Your task to perform on an android device: Set an alarm for 7am Image 0: 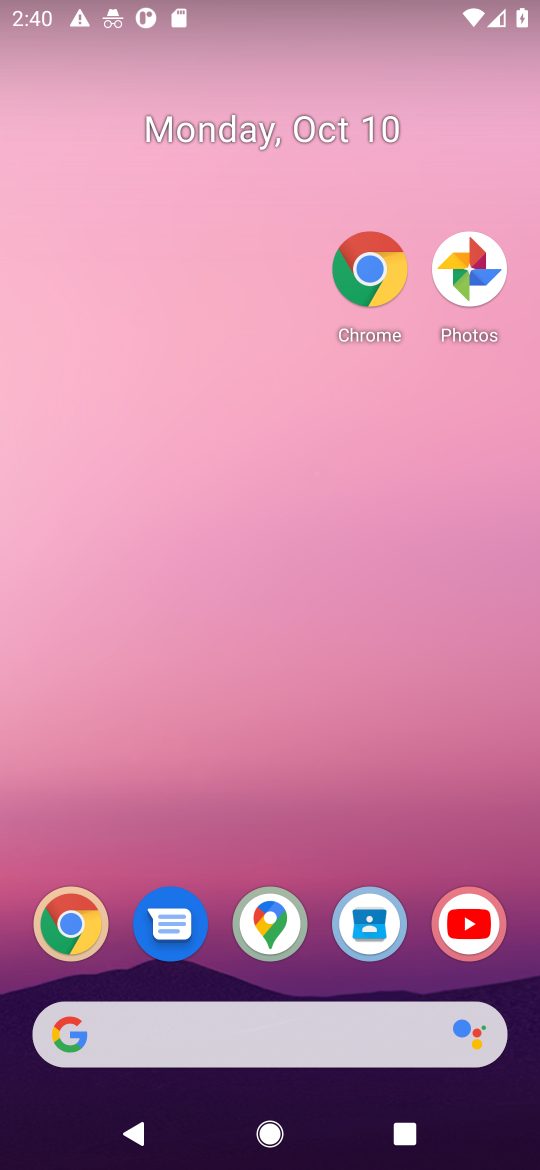
Step 0: drag from (313, 890) to (335, 16)
Your task to perform on an android device: Set an alarm for 7am Image 1: 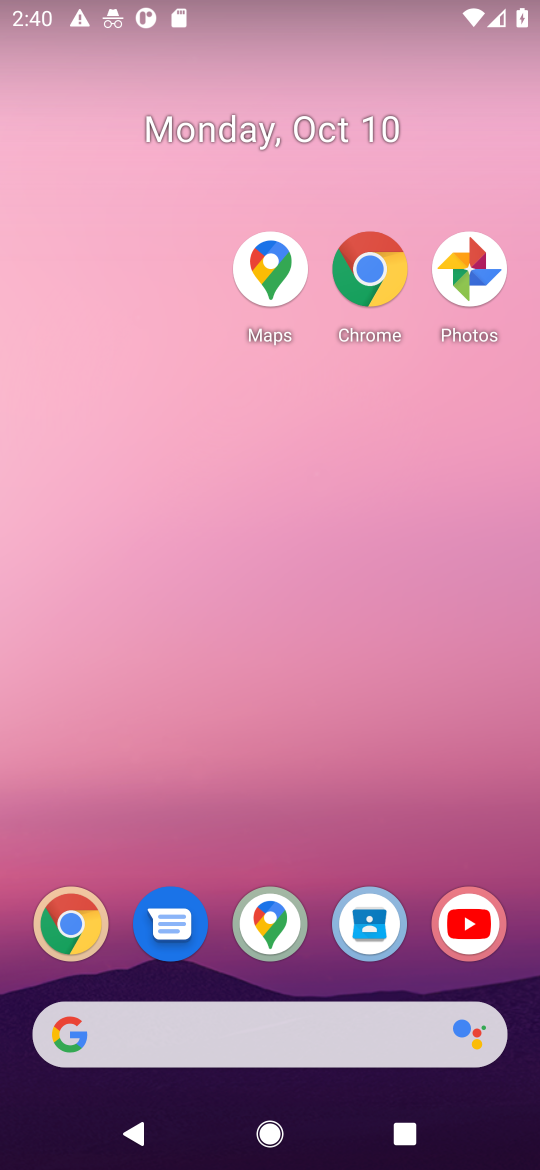
Step 1: drag from (320, 849) to (283, 9)
Your task to perform on an android device: Set an alarm for 7am Image 2: 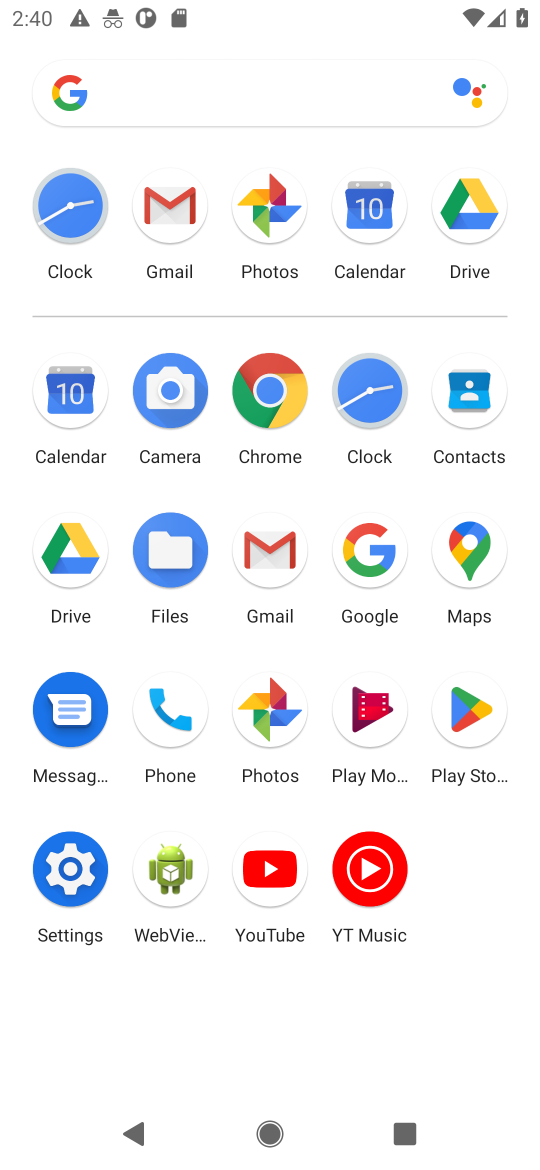
Step 2: click (385, 382)
Your task to perform on an android device: Set an alarm for 7am Image 3: 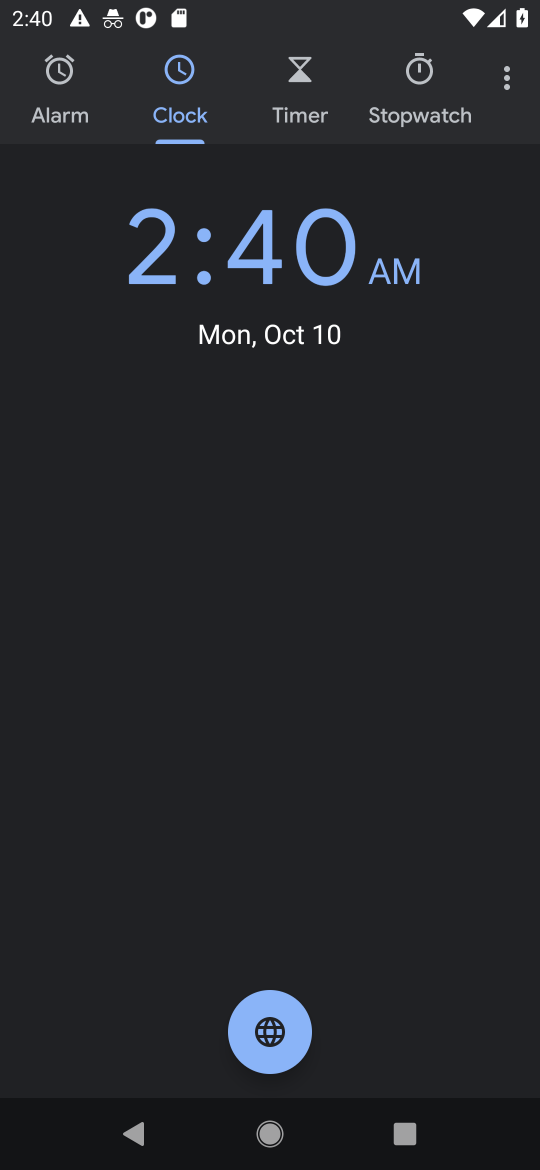
Step 3: click (60, 75)
Your task to perform on an android device: Set an alarm for 7am Image 4: 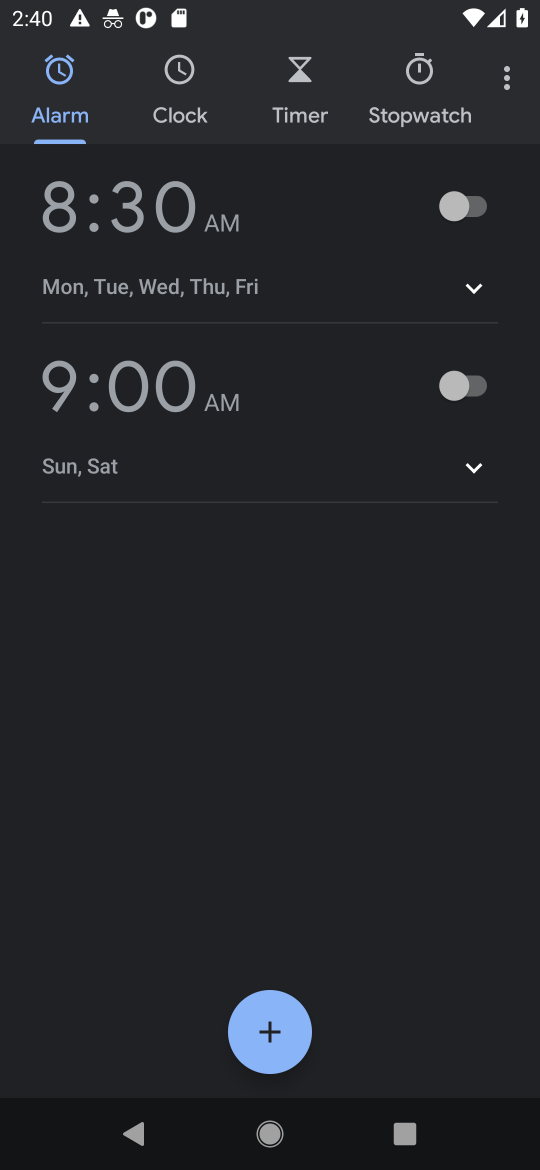
Step 4: click (284, 1029)
Your task to perform on an android device: Set an alarm for 7am Image 5: 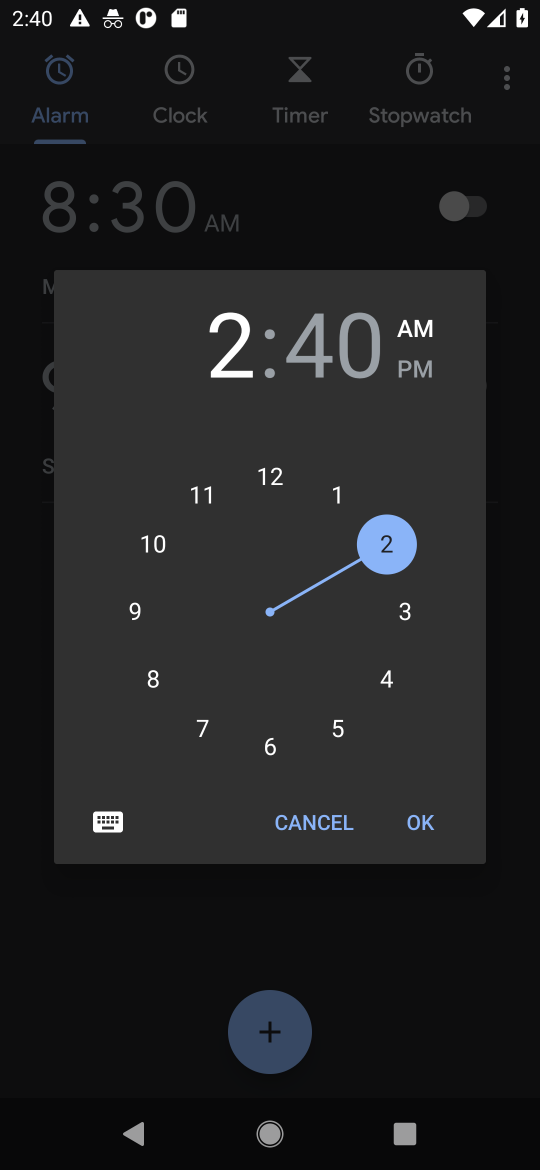
Step 5: click (202, 735)
Your task to perform on an android device: Set an alarm for 7am Image 6: 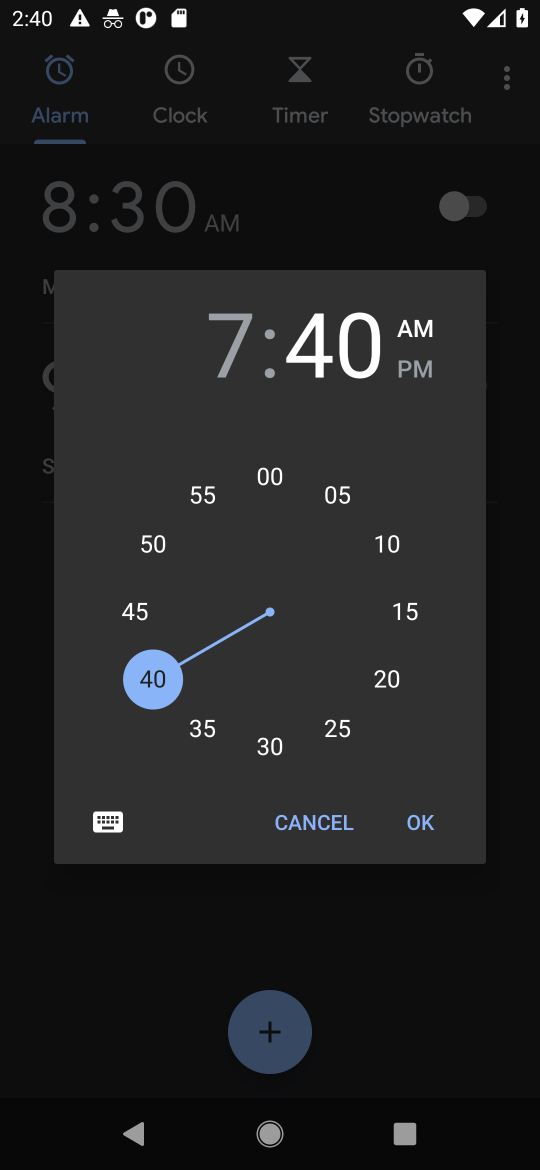
Step 6: click (266, 466)
Your task to perform on an android device: Set an alarm for 7am Image 7: 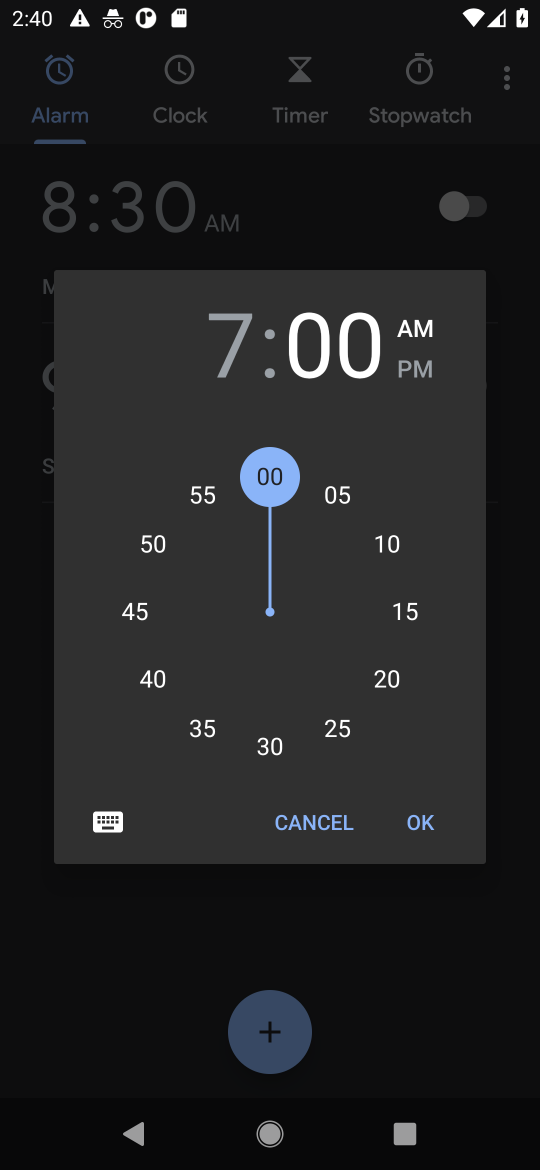
Step 7: click (438, 819)
Your task to perform on an android device: Set an alarm for 7am Image 8: 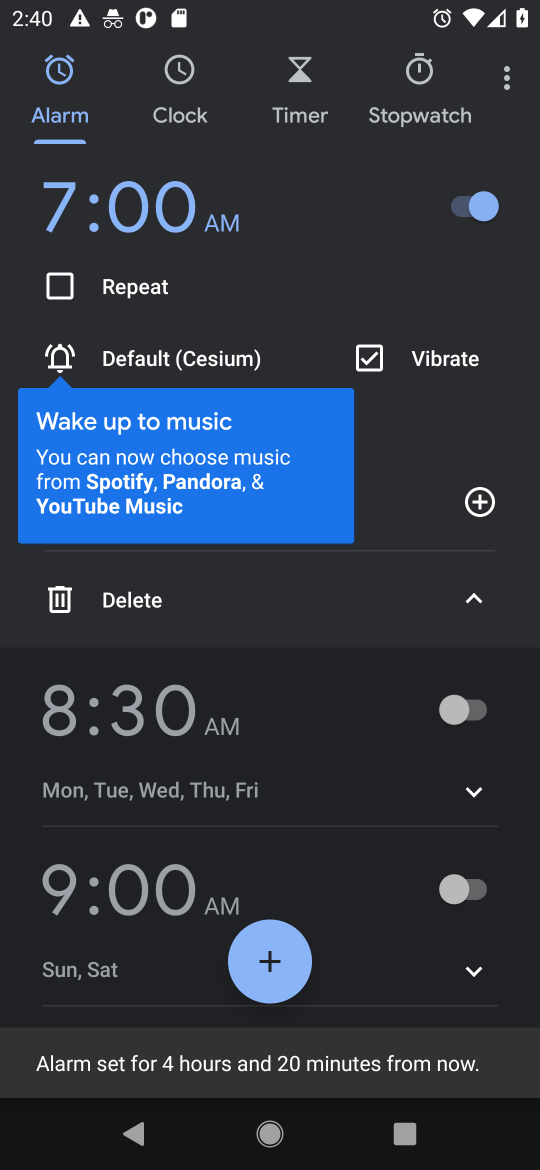
Step 8: task complete